Your task to perform on an android device: Open notification settings Image 0: 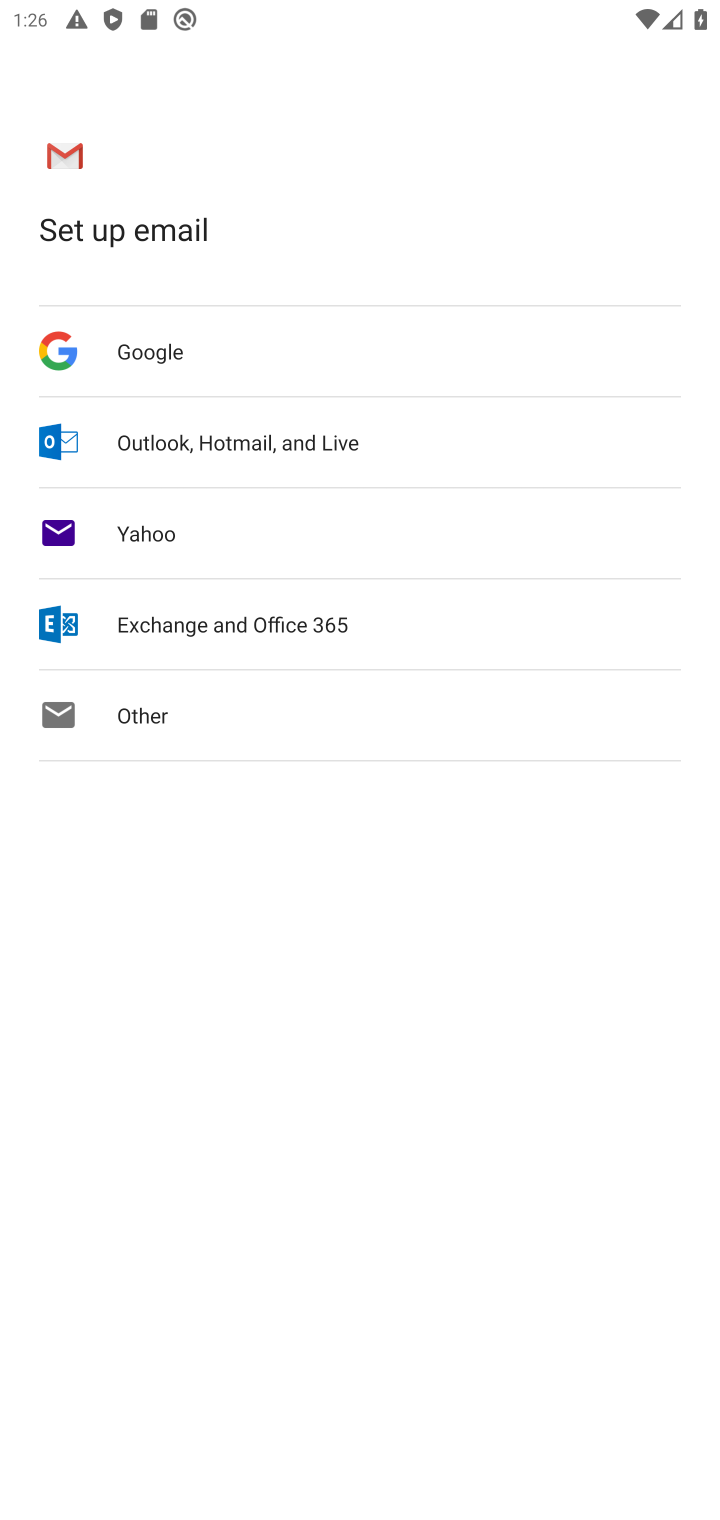
Step 0: press home button
Your task to perform on an android device: Open notification settings Image 1: 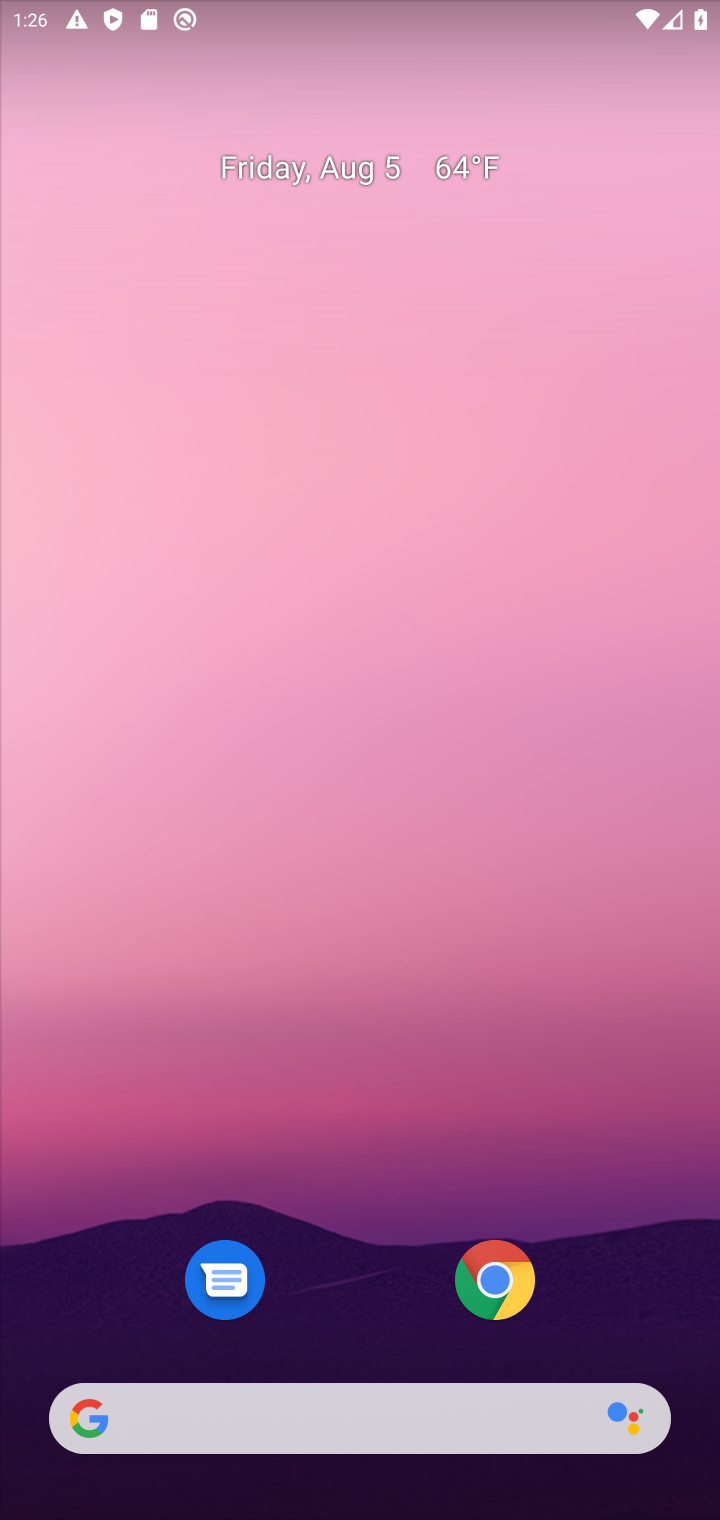
Step 1: drag from (364, 1107) to (364, 182)
Your task to perform on an android device: Open notification settings Image 2: 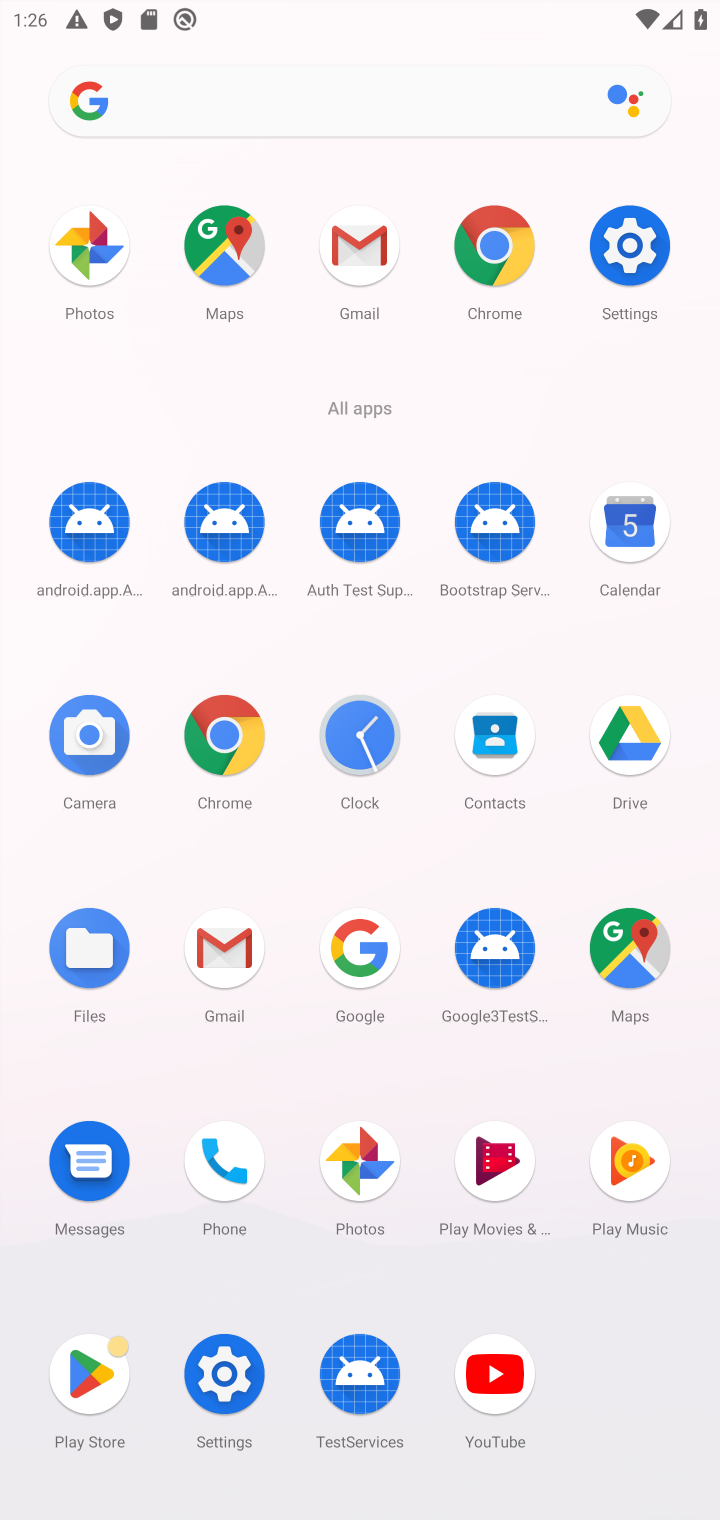
Step 2: click (216, 1360)
Your task to perform on an android device: Open notification settings Image 3: 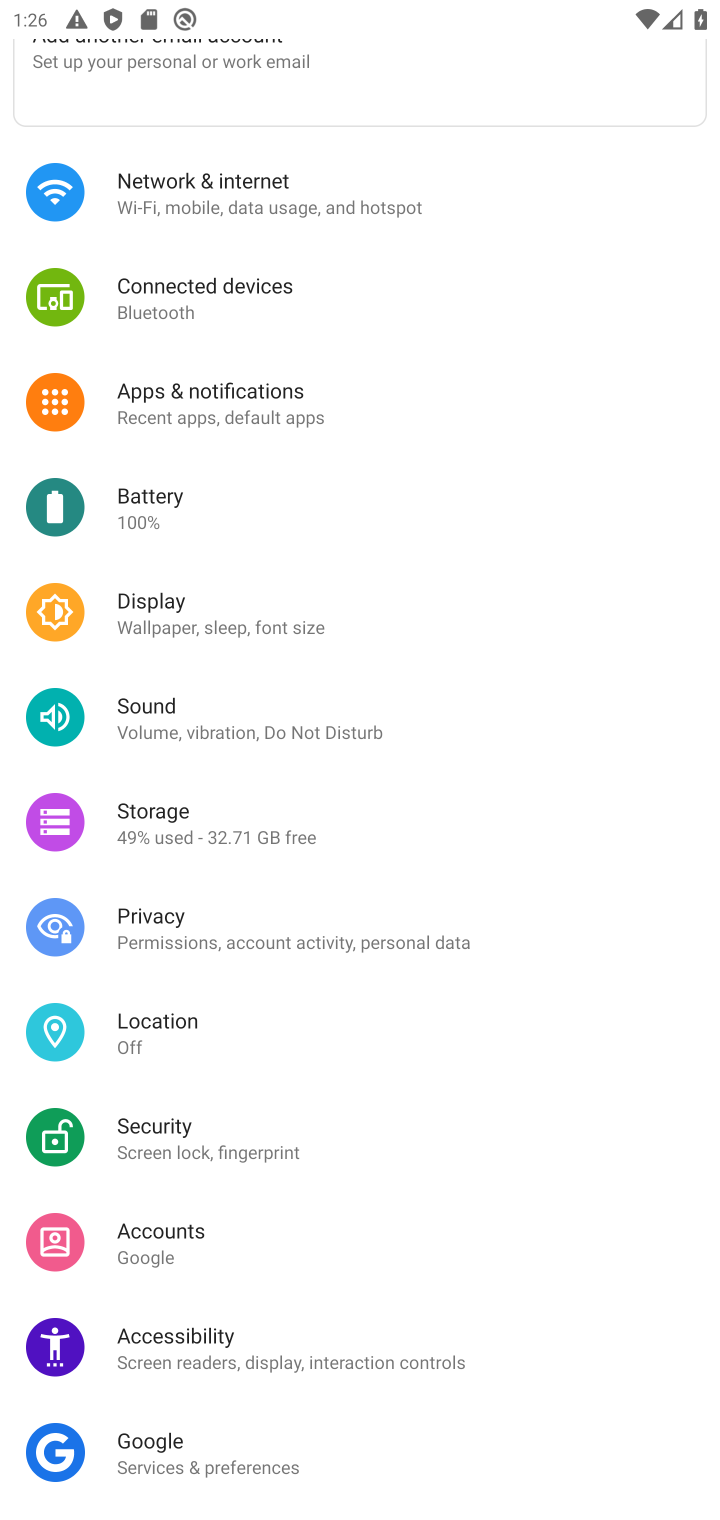
Step 3: click (252, 397)
Your task to perform on an android device: Open notification settings Image 4: 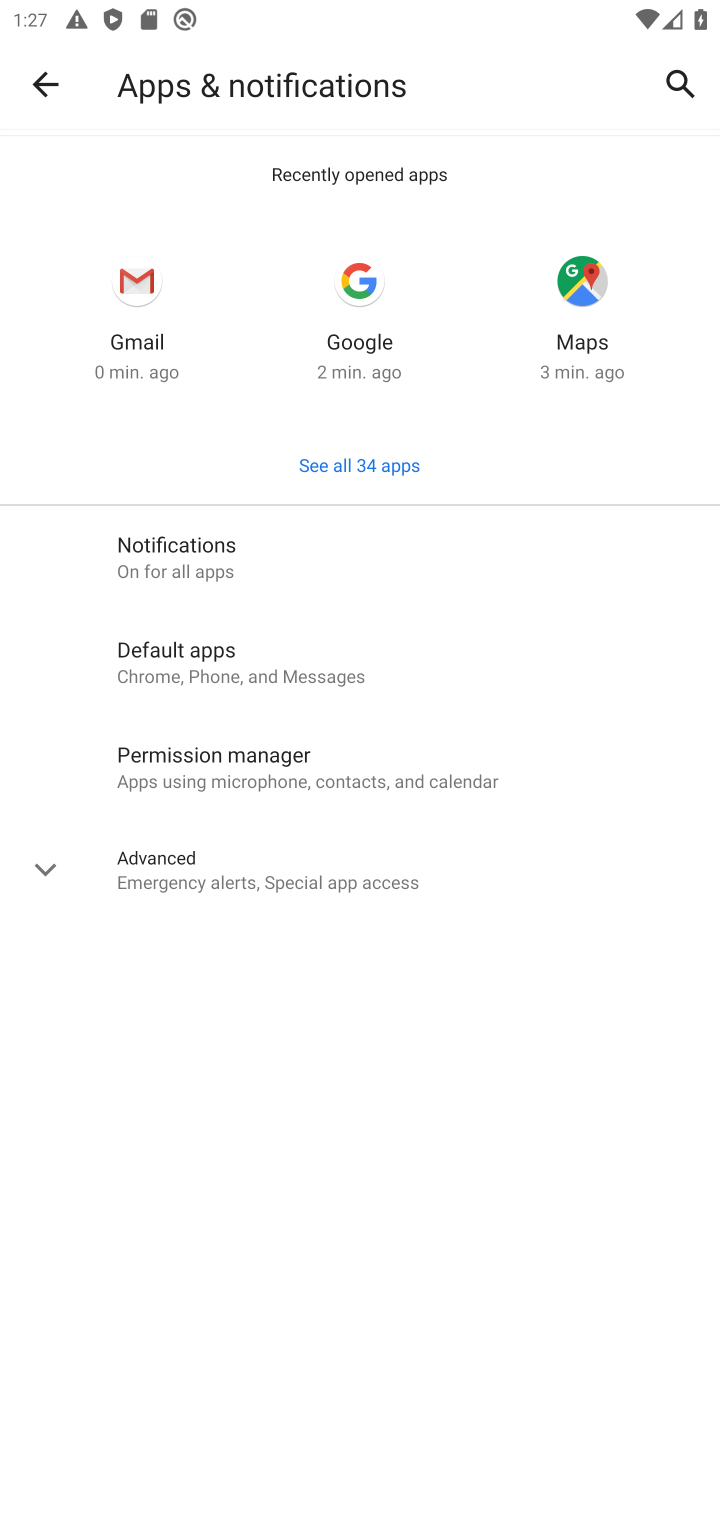
Step 4: click (358, 562)
Your task to perform on an android device: Open notification settings Image 5: 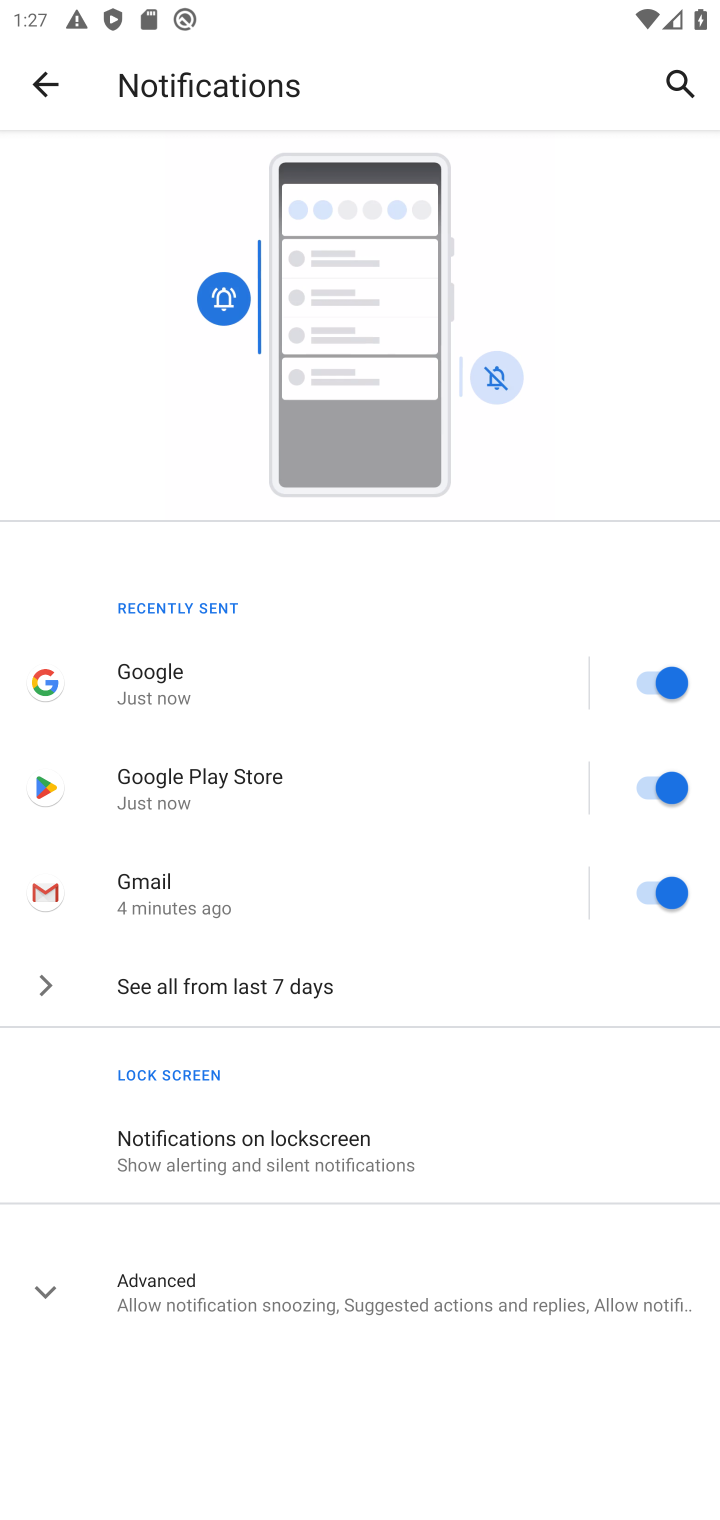
Step 5: task complete